Your task to perform on an android device: Check the news Image 0: 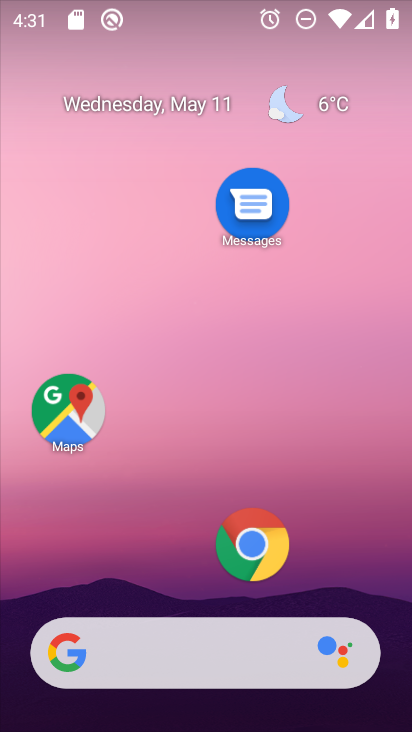
Step 0: click (201, 647)
Your task to perform on an android device: Check the news Image 1: 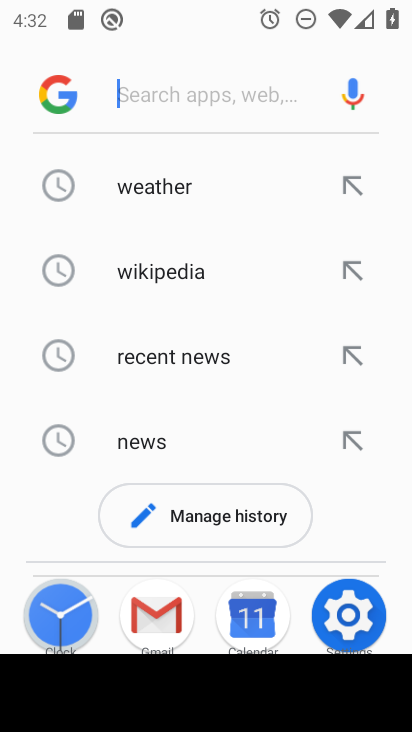
Step 1: click (155, 448)
Your task to perform on an android device: Check the news Image 2: 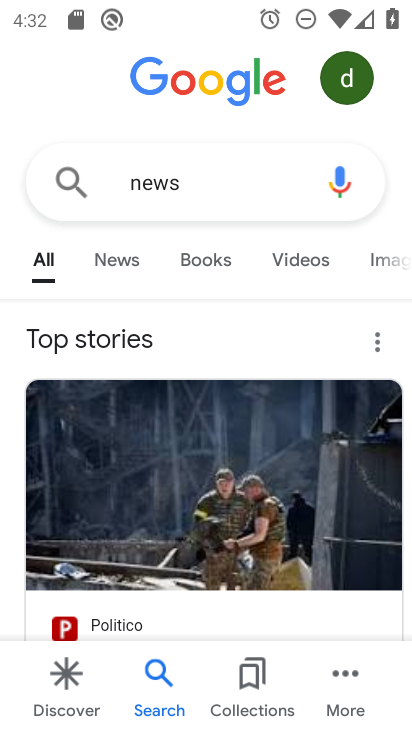
Step 2: task complete